Your task to perform on an android device: turn on location history Image 0: 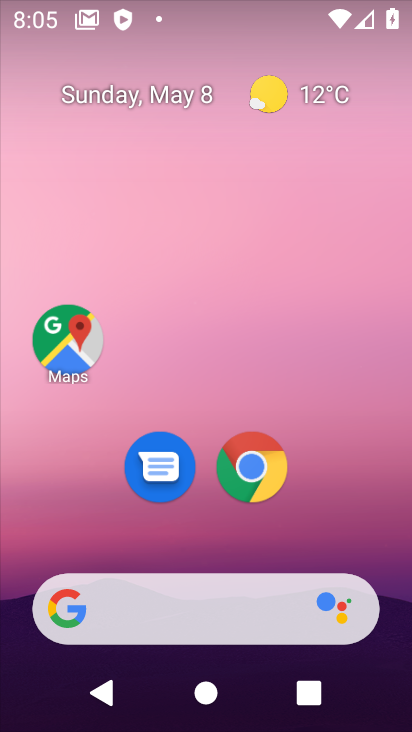
Step 0: drag from (224, 501) to (250, 22)
Your task to perform on an android device: turn on location history Image 1: 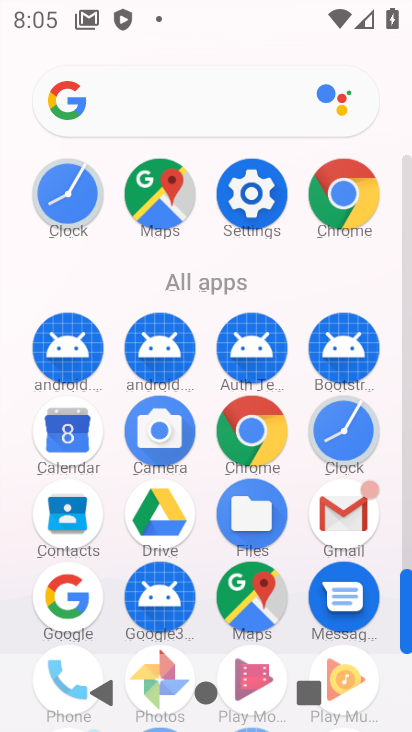
Step 1: click (253, 201)
Your task to perform on an android device: turn on location history Image 2: 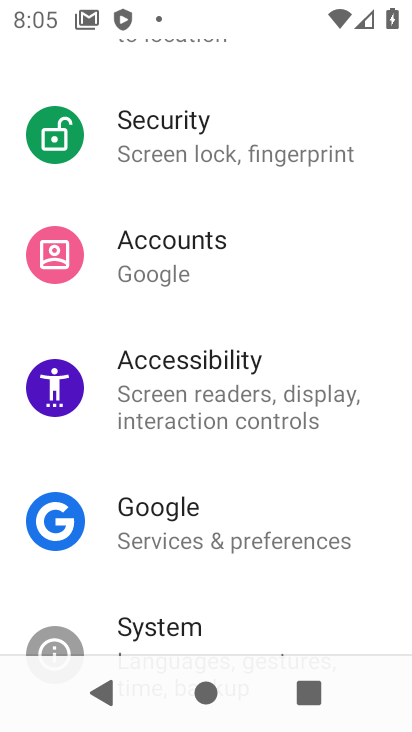
Step 2: drag from (192, 586) to (284, 88)
Your task to perform on an android device: turn on location history Image 3: 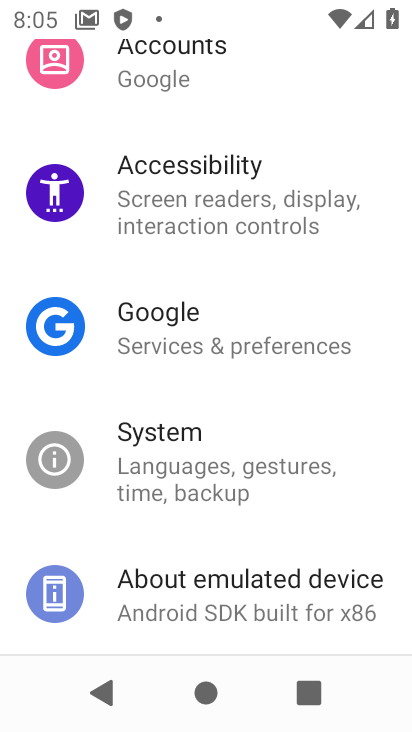
Step 3: drag from (224, 99) to (179, 671)
Your task to perform on an android device: turn on location history Image 4: 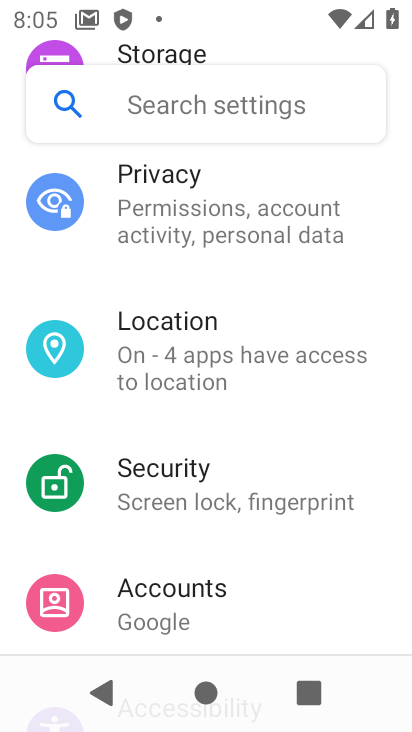
Step 4: click (174, 343)
Your task to perform on an android device: turn on location history Image 5: 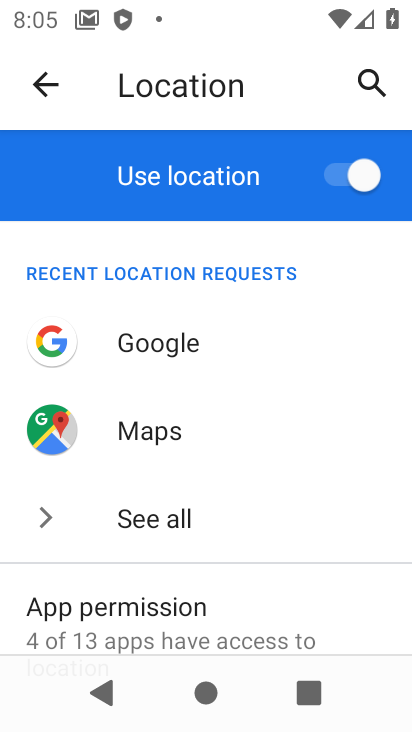
Step 5: drag from (183, 608) to (301, 169)
Your task to perform on an android device: turn on location history Image 6: 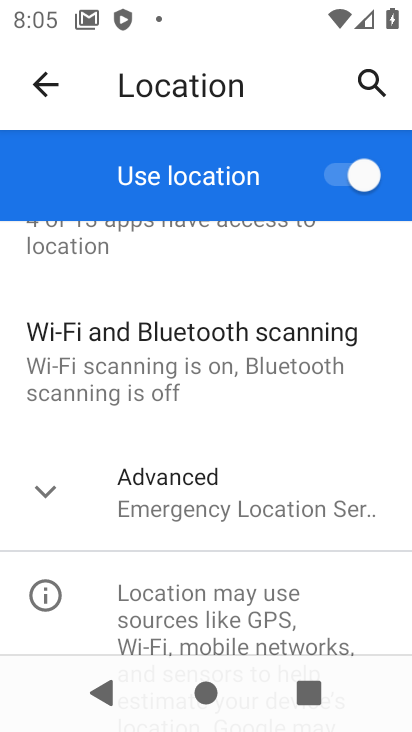
Step 6: click (233, 495)
Your task to perform on an android device: turn on location history Image 7: 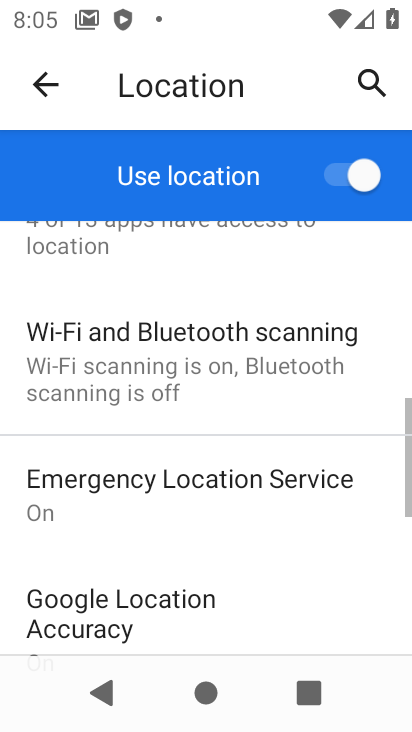
Step 7: drag from (188, 613) to (277, 259)
Your task to perform on an android device: turn on location history Image 8: 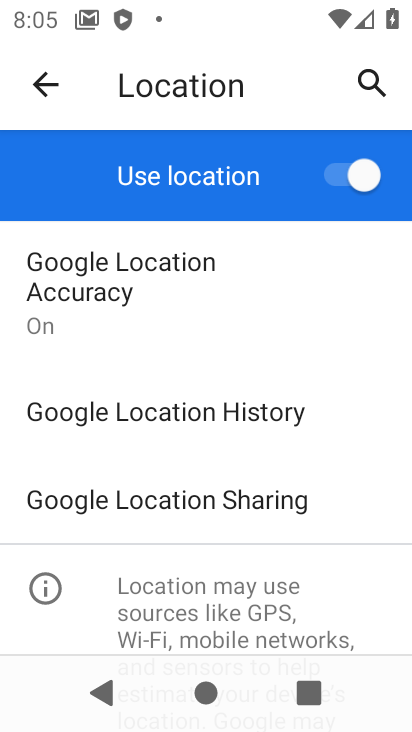
Step 8: click (133, 411)
Your task to perform on an android device: turn on location history Image 9: 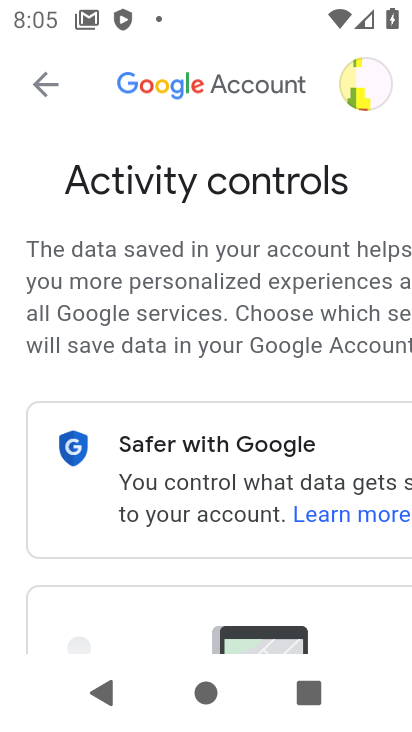
Step 9: task complete